Your task to perform on an android device: clear all cookies in the chrome app Image 0: 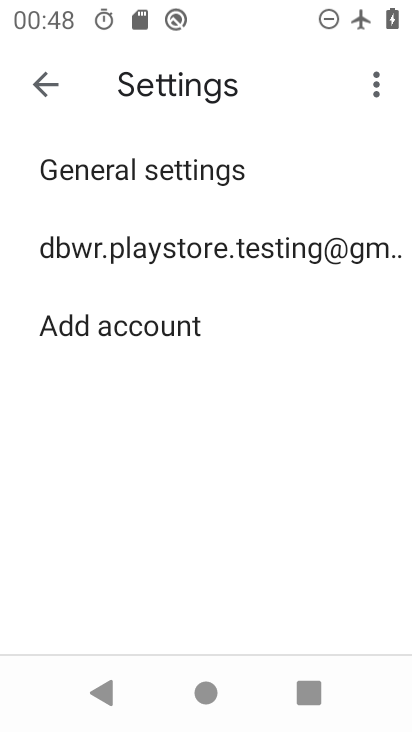
Step 0: press home button
Your task to perform on an android device: clear all cookies in the chrome app Image 1: 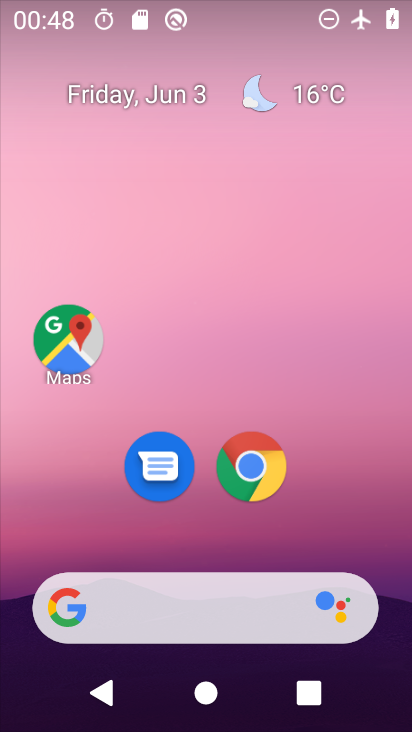
Step 1: click (256, 457)
Your task to perform on an android device: clear all cookies in the chrome app Image 2: 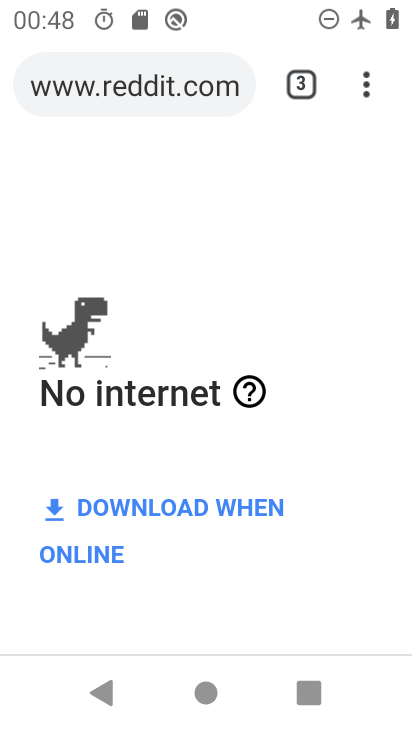
Step 2: click (356, 82)
Your task to perform on an android device: clear all cookies in the chrome app Image 3: 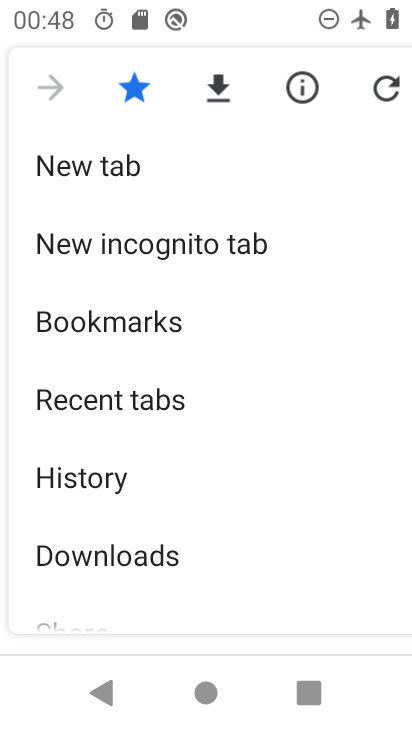
Step 3: drag from (132, 562) to (162, 255)
Your task to perform on an android device: clear all cookies in the chrome app Image 4: 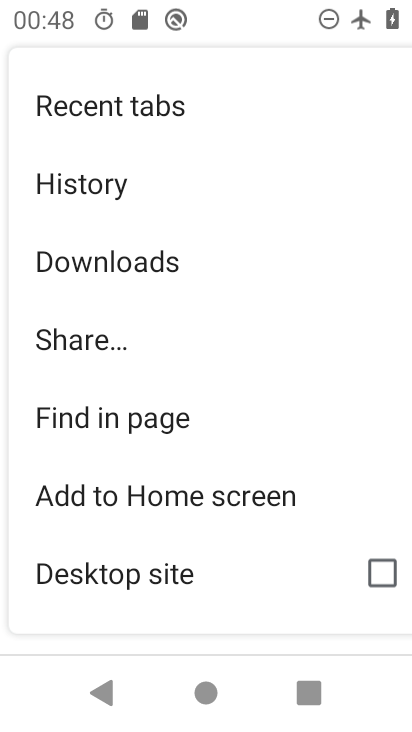
Step 4: click (109, 197)
Your task to perform on an android device: clear all cookies in the chrome app Image 5: 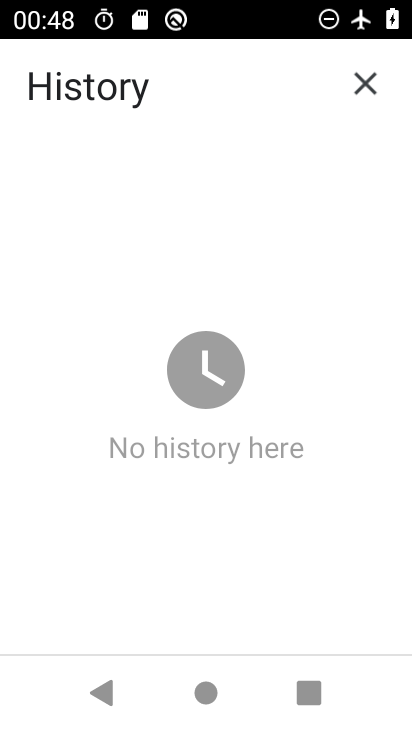
Step 5: task complete